Your task to perform on an android device: Search for Italian restaurants on Maps Image 0: 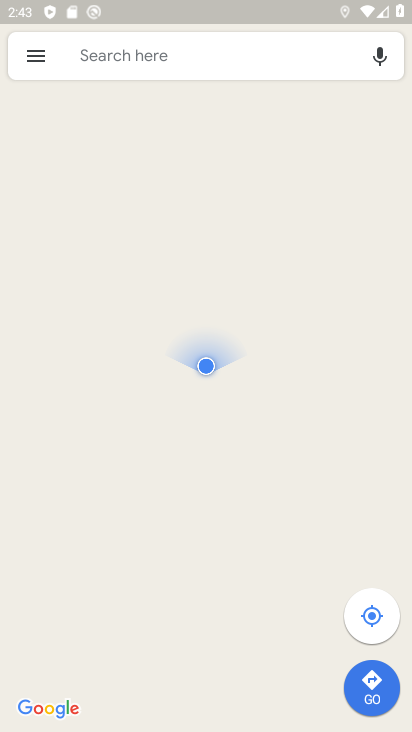
Step 0: click (164, 58)
Your task to perform on an android device: Search for Italian restaurants on Maps Image 1: 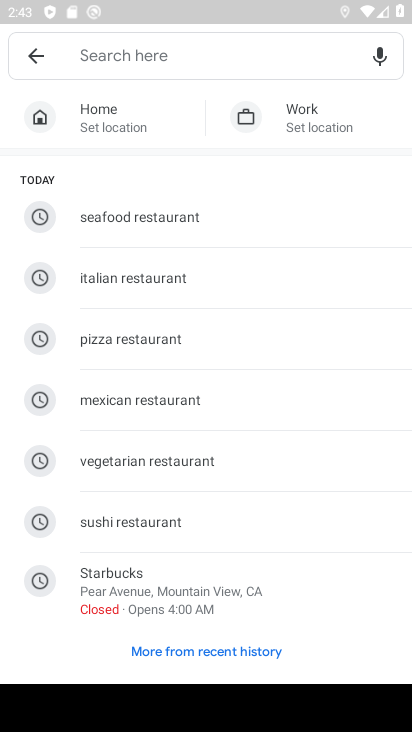
Step 1: type "Italian restaurants"
Your task to perform on an android device: Search for Italian restaurants on Maps Image 2: 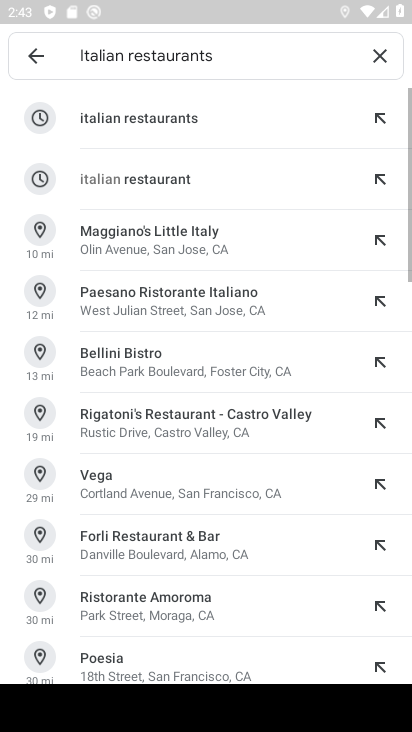
Step 2: click (121, 116)
Your task to perform on an android device: Search for Italian restaurants on Maps Image 3: 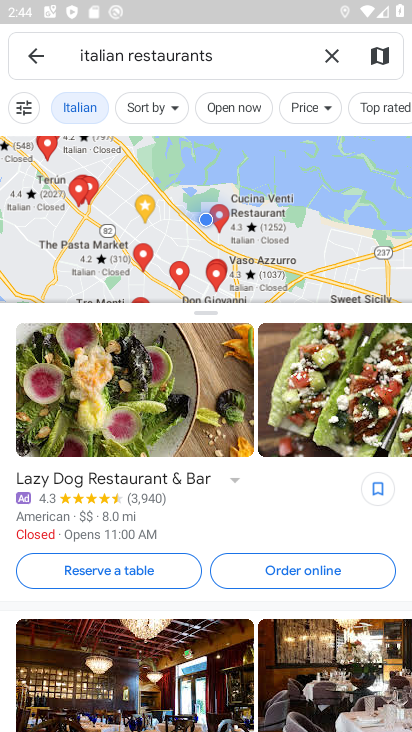
Step 3: task complete